Your task to perform on an android device: Go to internet settings Image 0: 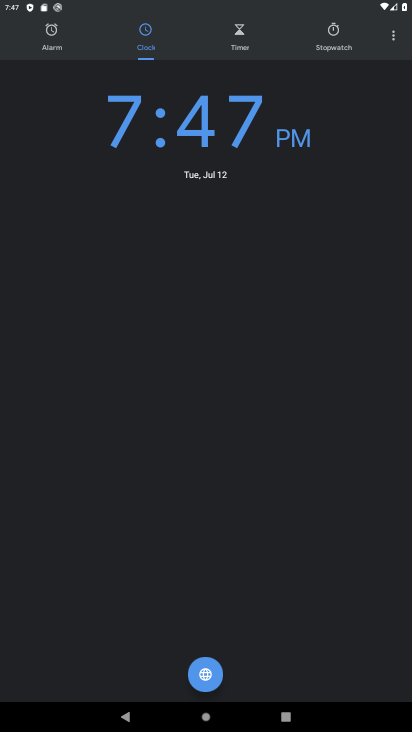
Step 0: press home button
Your task to perform on an android device: Go to internet settings Image 1: 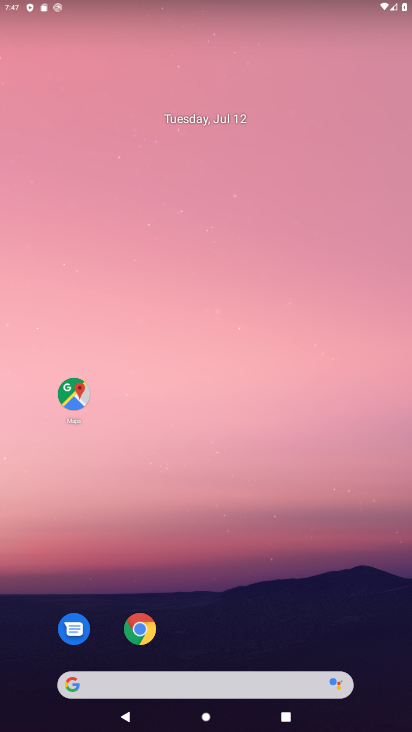
Step 1: drag from (224, 714) to (304, 3)
Your task to perform on an android device: Go to internet settings Image 2: 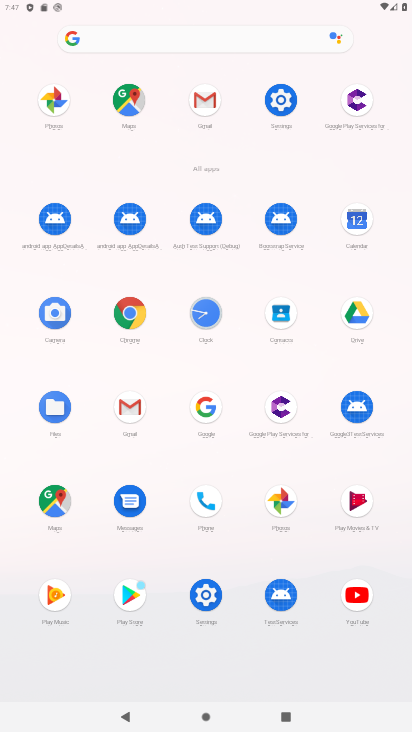
Step 2: click (283, 104)
Your task to perform on an android device: Go to internet settings Image 3: 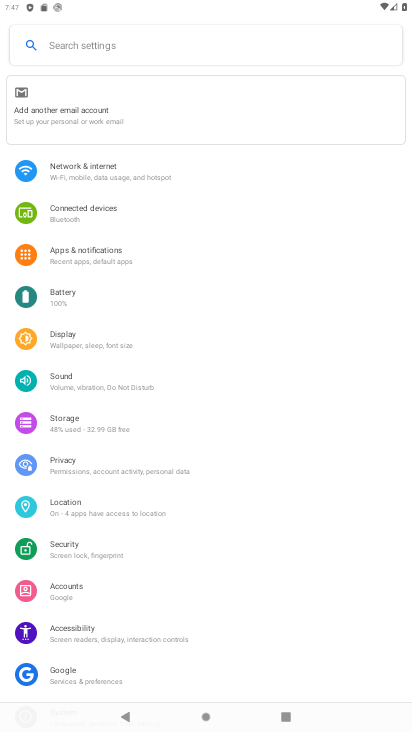
Step 3: click (153, 178)
Your task to perform on an android device: Go to internet settings Image 4: 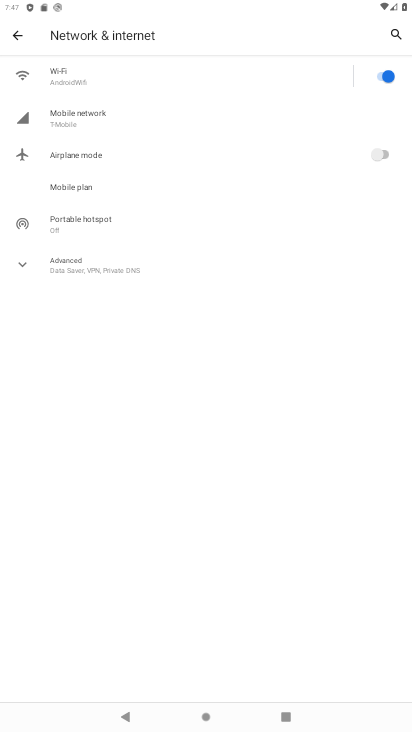
Step 4: task complete